Your task to perform on an android device: Add "logitech g pro" to the cart on walmart, then select checkout. Image 0: 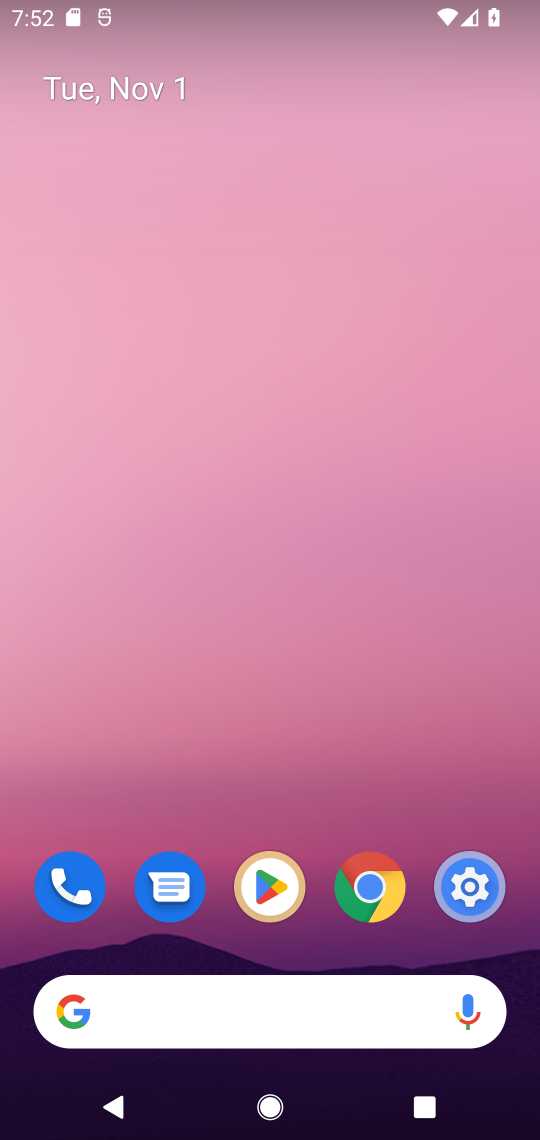
Step 0: drag from (183, 472) to (0, 1005)
Your task to perform on an android device: Add "logitech g pro" to the cart on walmart, then select checkout. Image 1: 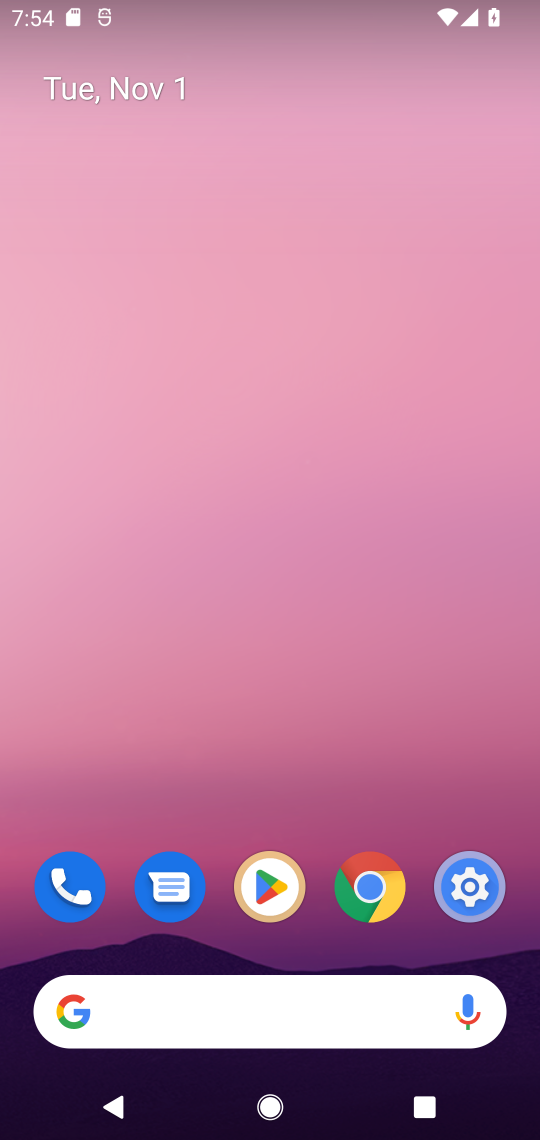
Step 1: click (298, 1032)
Your task to perform on an android device: Add "logitech g pro" to the cart on walmart, then select checkout. Image 2: 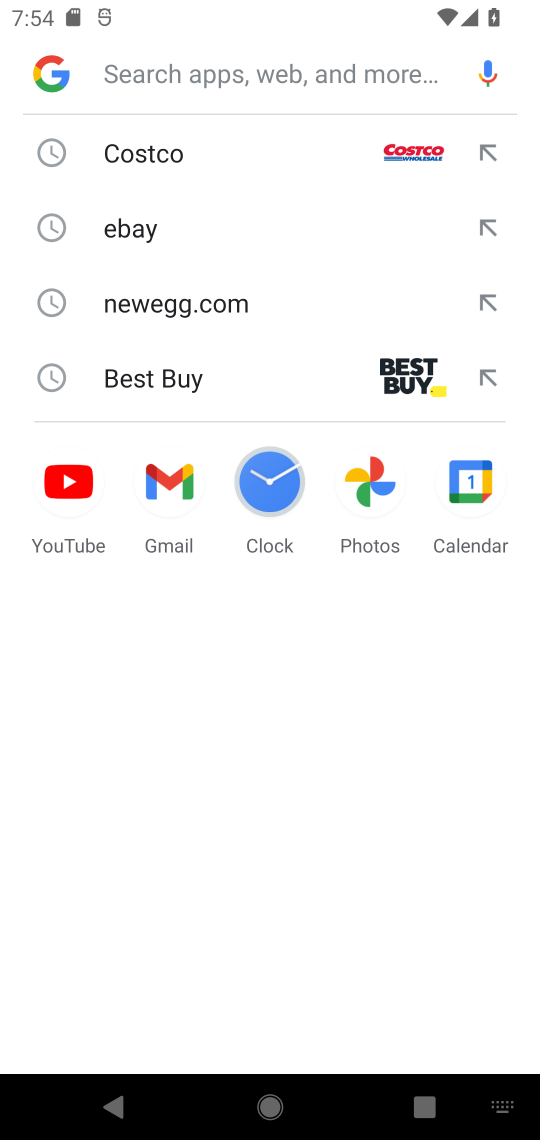
Step 2: type "walmart"
Your task to perform on an android device: Add "logitech g pro" to the cart on walmart, then select checkout. Image 3: 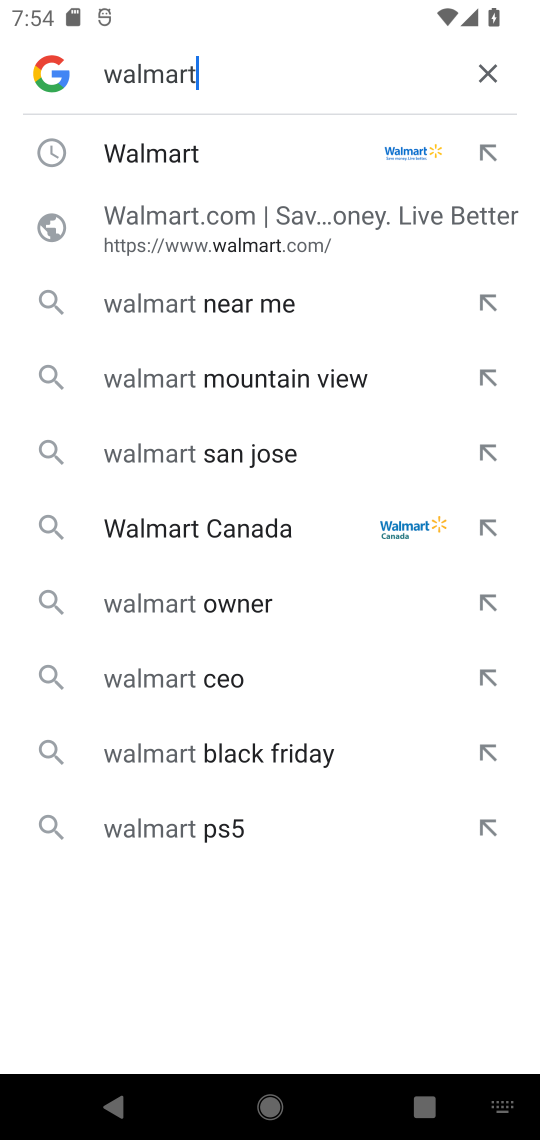
Step 3: click (314, 151)
Your task to perform on an android device: Add "logitech g pro" to the cart on walmart, then select checkout. Image 4: 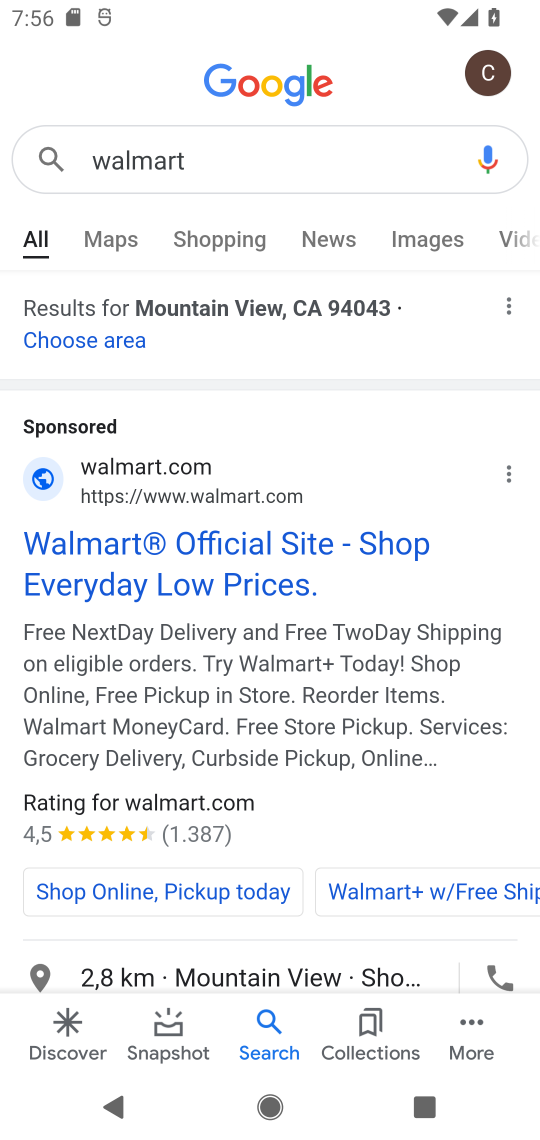
Step 4: click (76, 558)
Your task to perform on an android device: Add "logitech g pro" to the cart on walmart, then select checkout. Image 5: 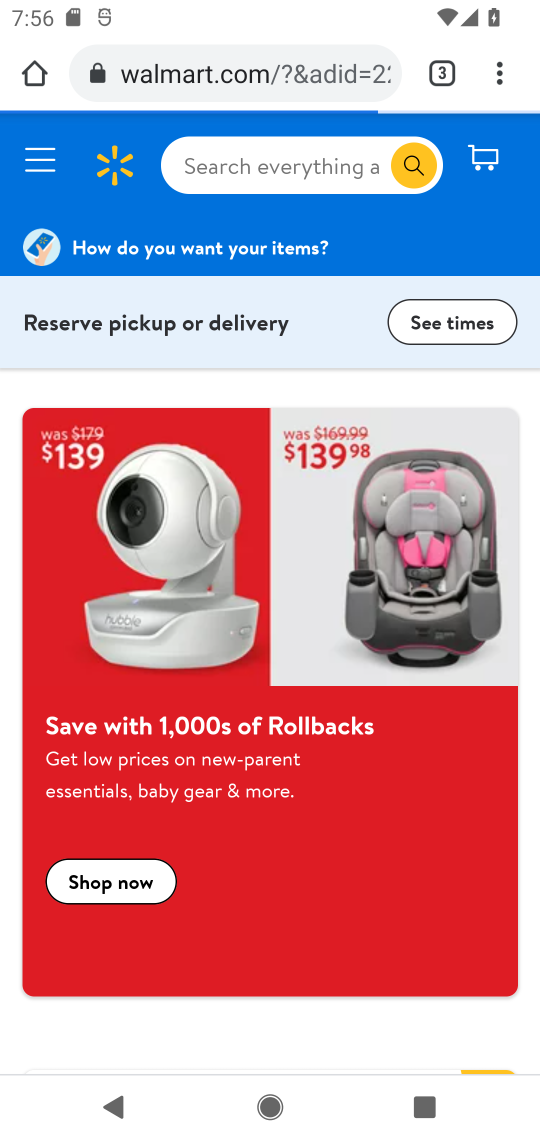
Step 5: click (314, 154)
Your task to perform on an android device: Add "logitech g pro" to the cart on walmart, then select checkout. Image 6: 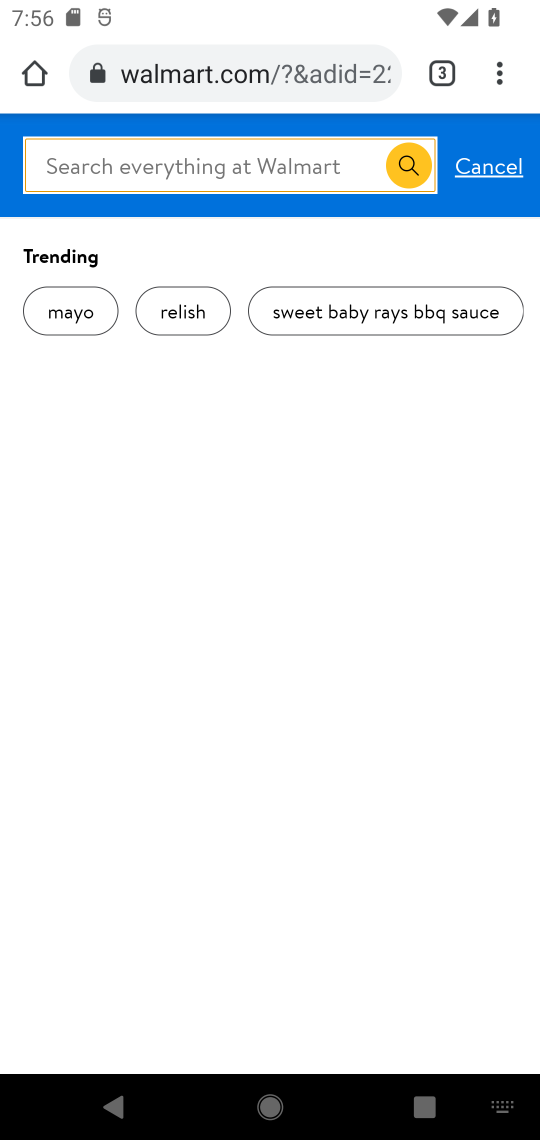
Step 6: type "logitech g pro"
Your task to perform on an android device: Add "logitech g pro" to the cart on walmart, then select checkout. Image 7: 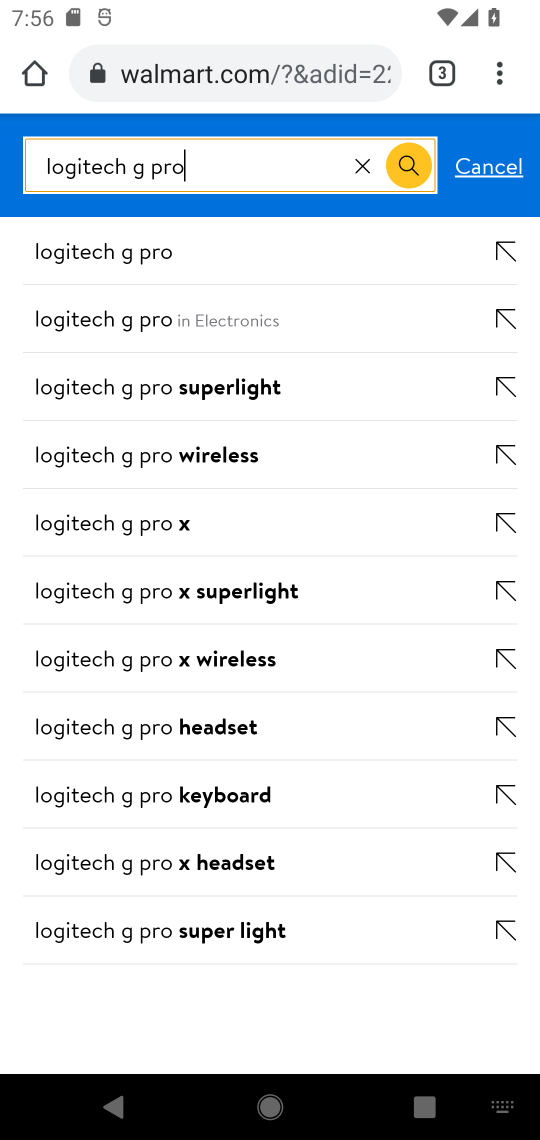
Step 7: click (112, 247)
Your task to perform on an android device: Add "logitech g pro" to the cart on walmart, then select checkout. Image 8: 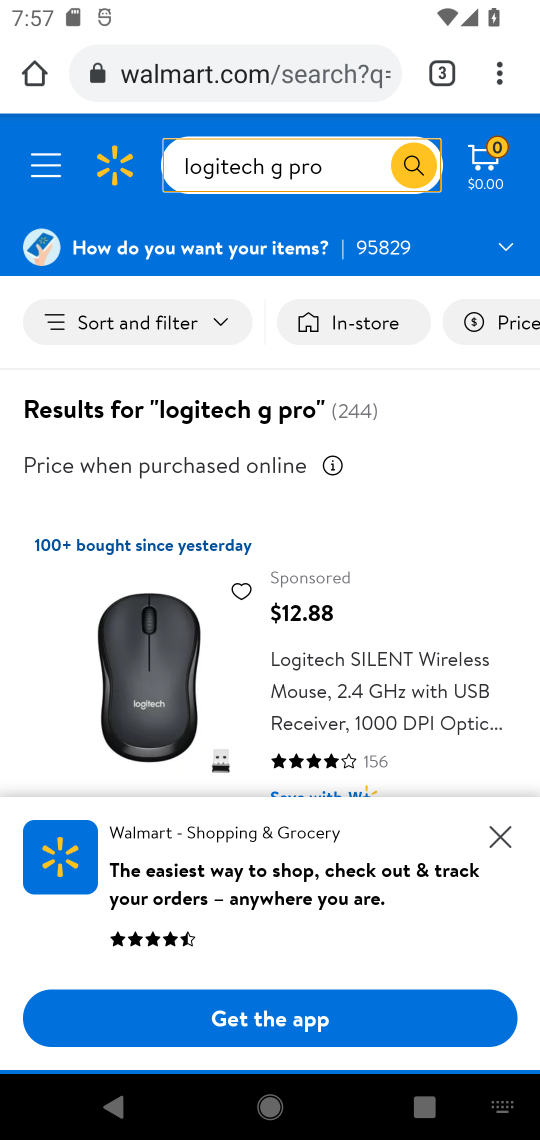
Step 8: click (511, 843)
Your task to perform on an android device: Add "logitech g pro" to the cart on walmart, then select checkout. Image 9: 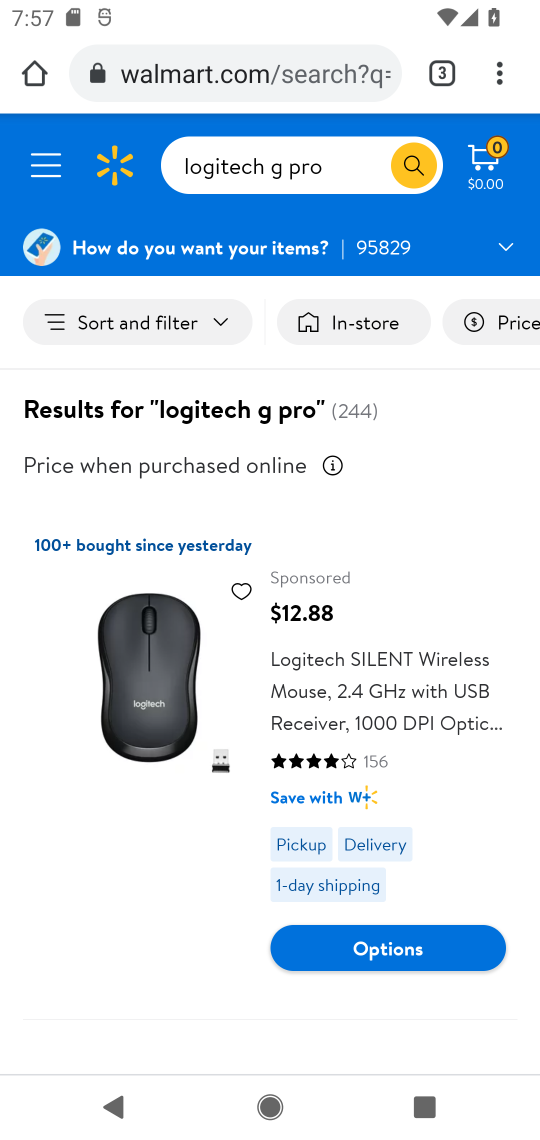
Step 9: click (334, 932)
Your task to perform on an android device: Add "logitech g pro" to the cart on walmart, then select checkout. Image 10: 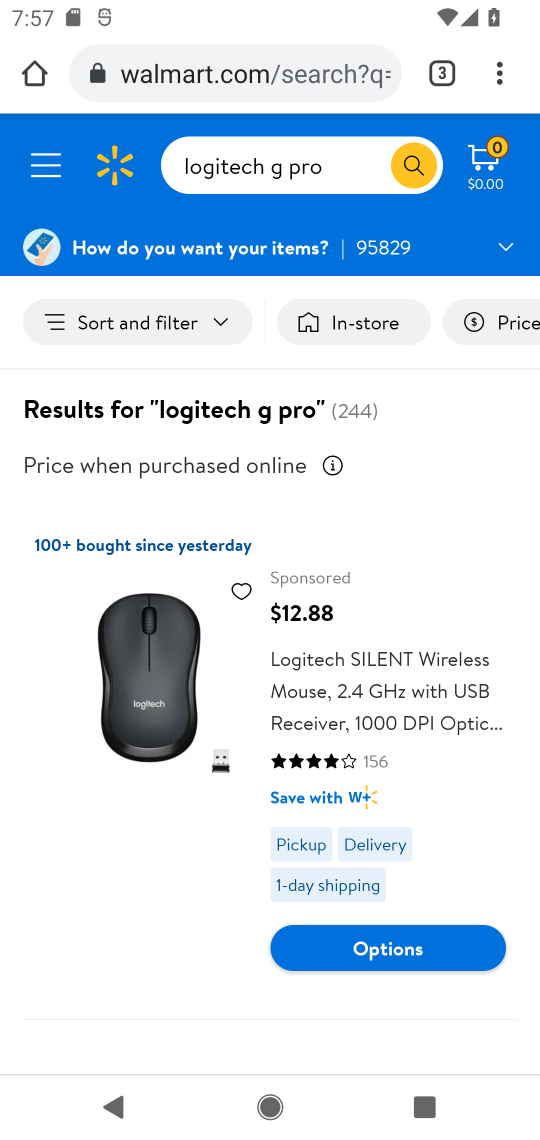
Step 10: click (347, 938)
Your task to perform on an android device: Add "logitech g pro" to the cart on walmart, then select checkout. Image 11: 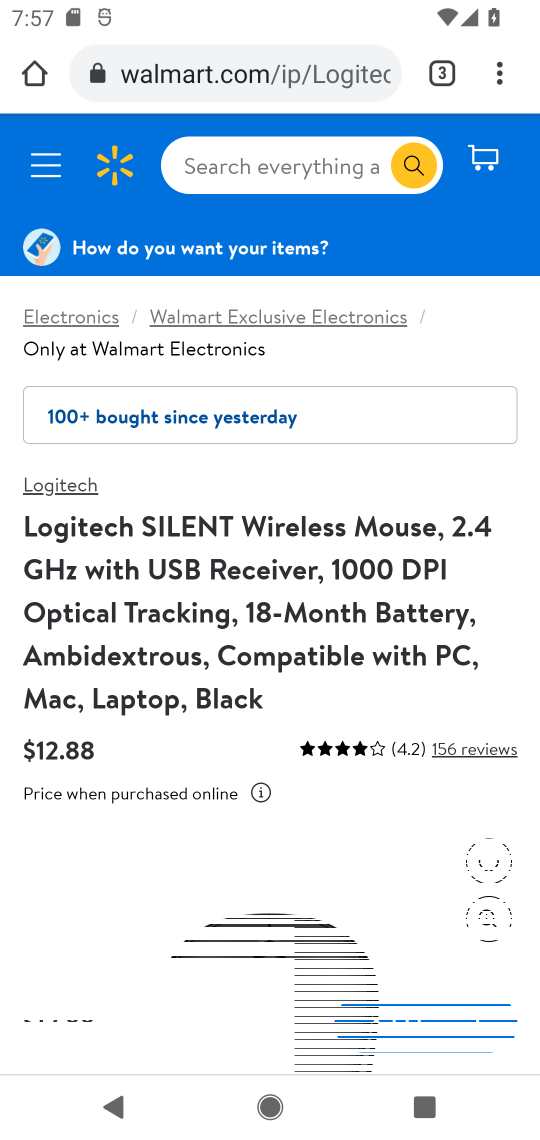
Step 11: click (421, 1039)
Your task to perform on an android device: Add "logitech g pro" to the cart on walmart, then select checkout. Image 12: 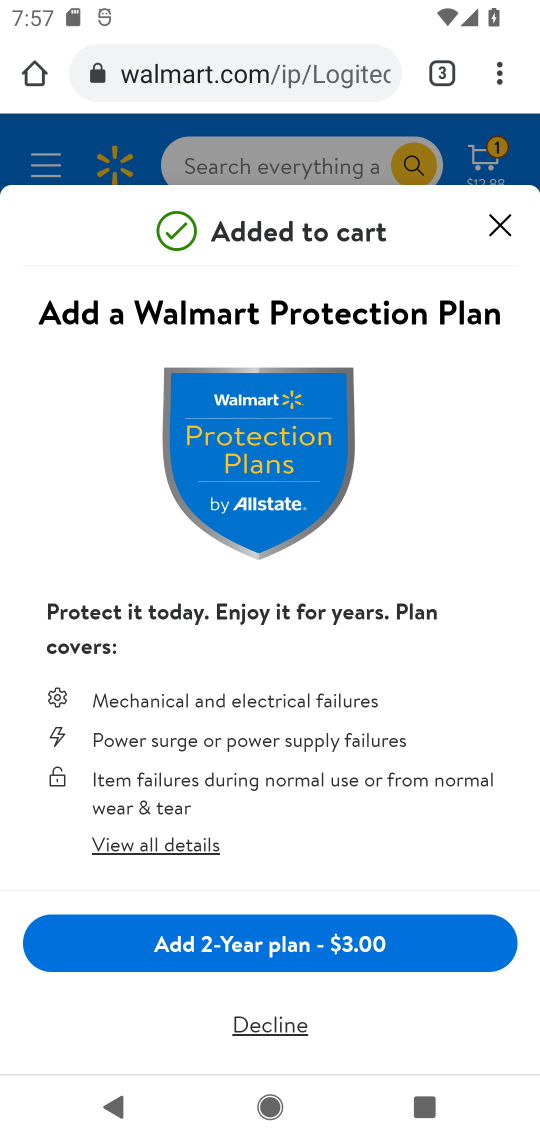
Step 12: click (265, 1021)
Your task to perform on an android device: Add "logitech g pro" to the cart on walmart, then select checkout. Image 13: 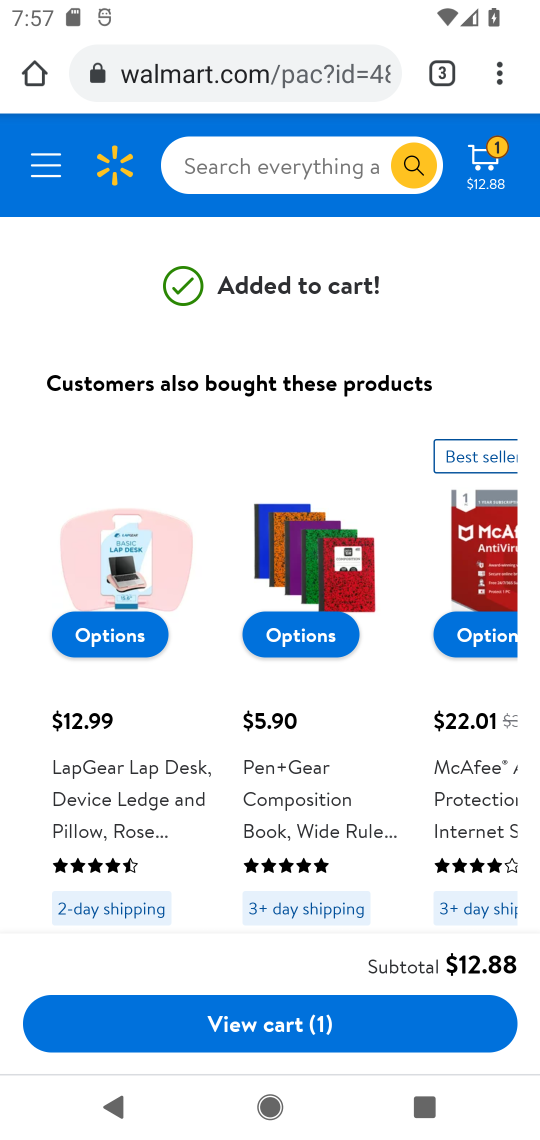
Step 13: click (269, 1042)
Your task to perform on an android device: Add "logitech g pro" to the cart on walmart, then select checkout. Image 14: 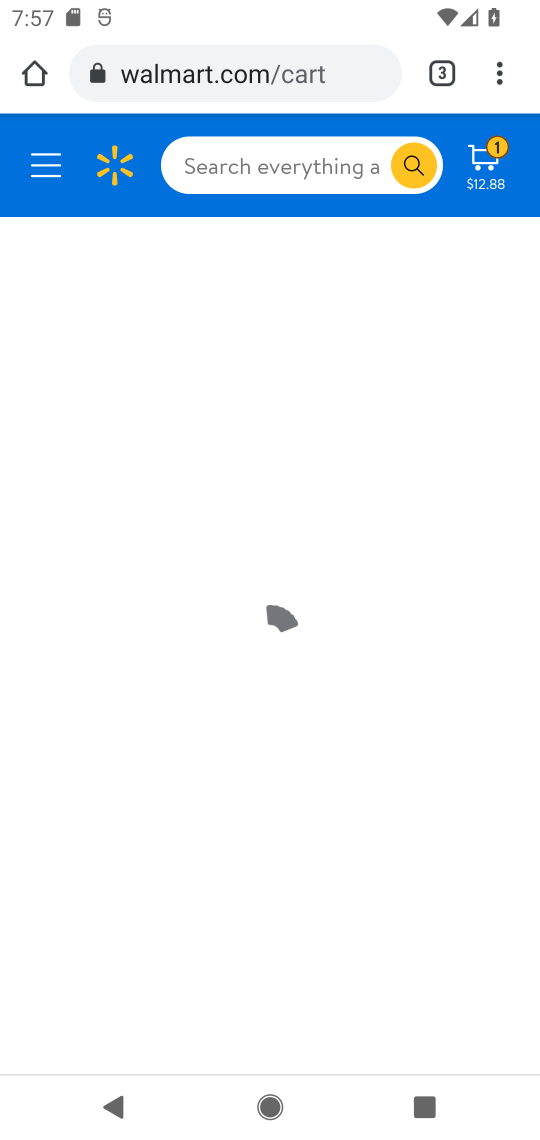
Step 14: click (269, 1042)
Your task to perform on an android device: Add "logitech g pro" to the cart on walmart, then select checkout. Image 15: 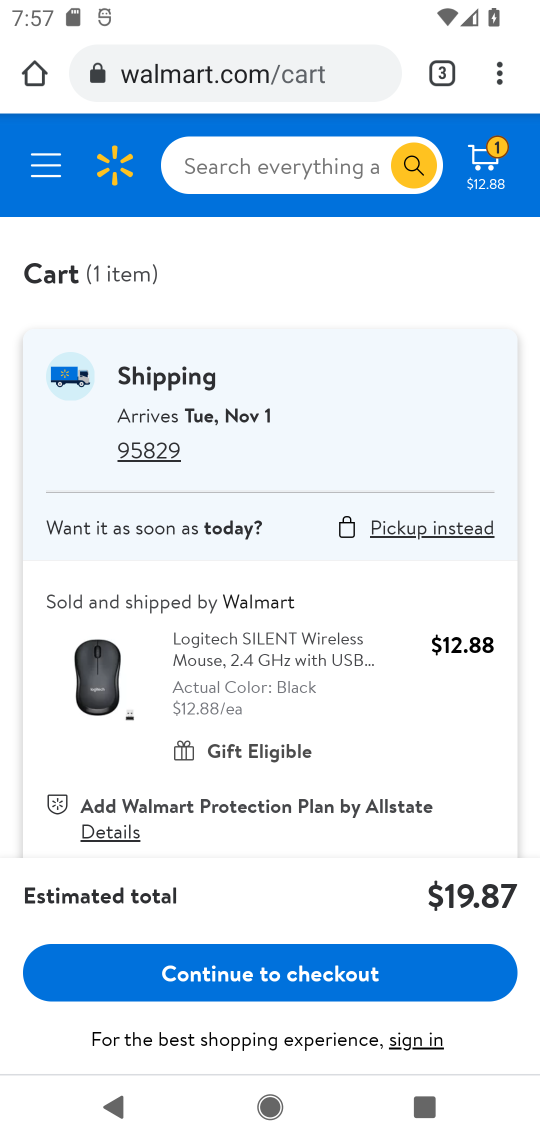
Step 15: click (290, 974)
Your task to perform on an android device: Add "logitech g pro" to the cart on walmart, then select checkout. Image 16: 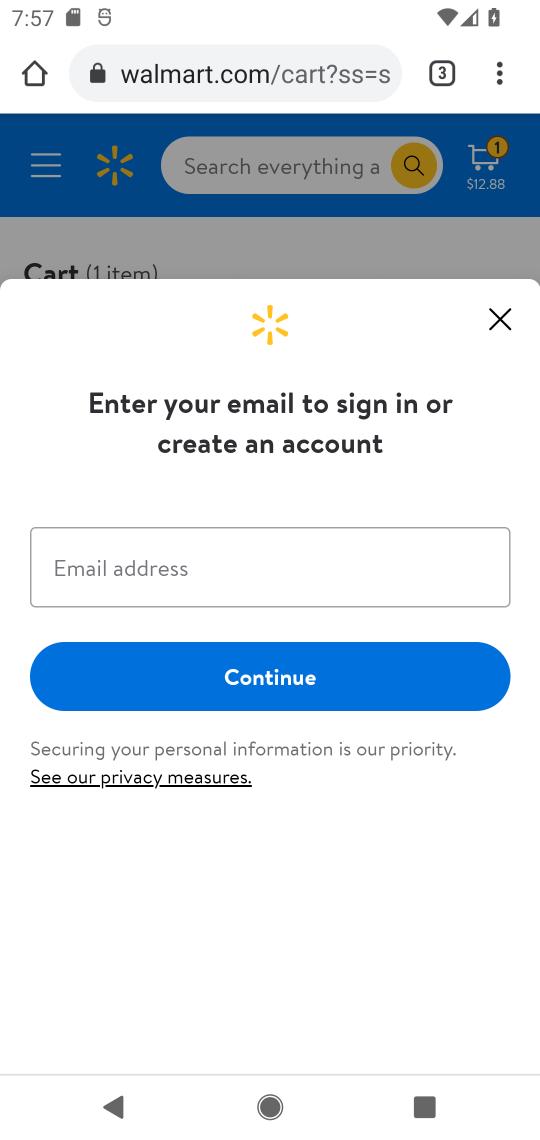
Step 16: task complete